Your task to perform on an android device: turn off location history Image 0: 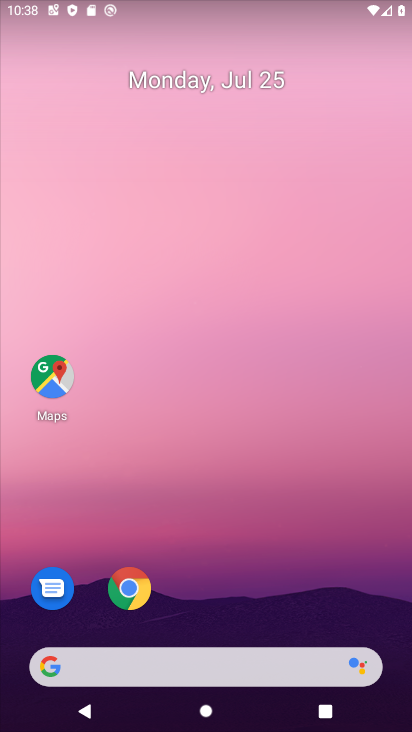
Step 0: drag from (360, 592) to (319, 46)
Your task to perform on an android device: turn off location history Image 1: 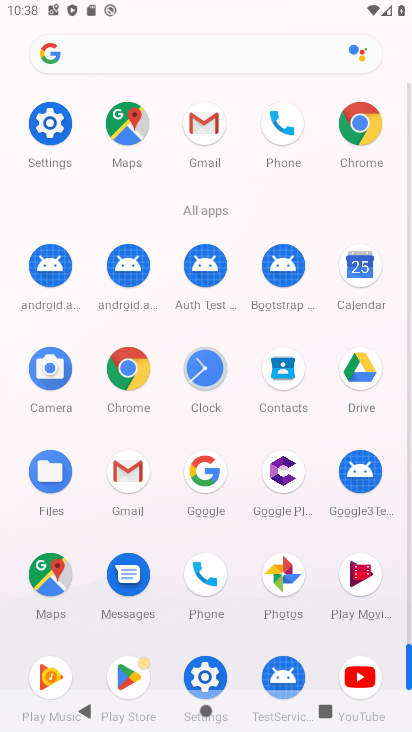
Step 1: click (203, 667)
Your task to perform on an android device: turn off location history Image 2: 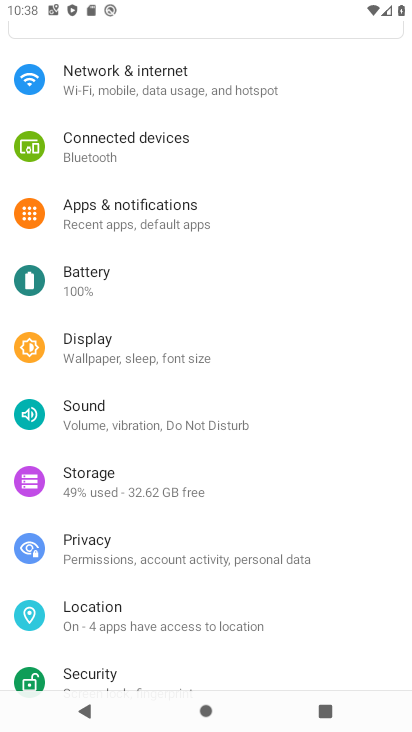
Step 2: click (97, 613)
Your task to perform on an android device: turn off location history Image 3: 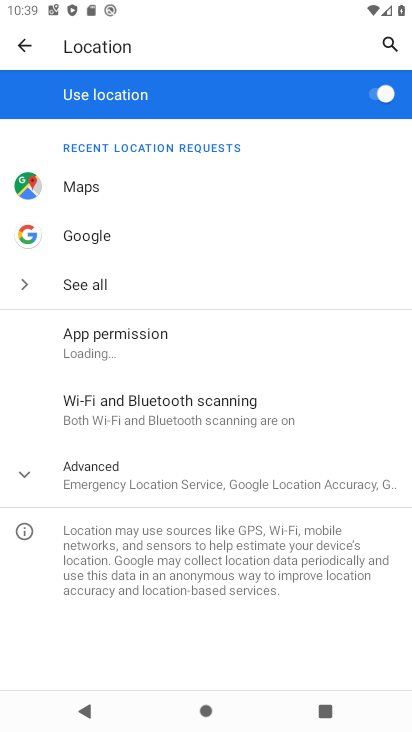
Step 3: click (119, 479)
Your task to perform on an android device: turn off location history Image 4: 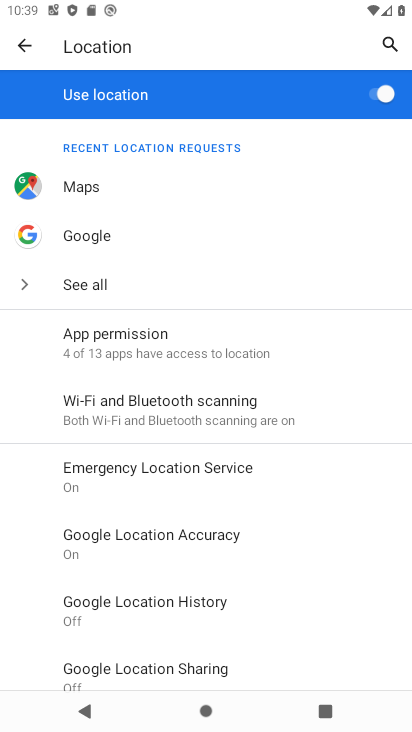
Step 4: click (225, 619)
Your task to perform on an android device: turn off location history Image 5: 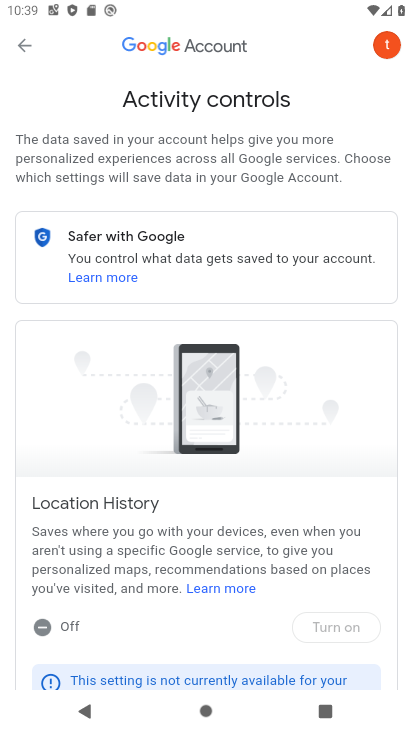
Step 5: task complete